Your task to perform on an android device: Open calendar and show me the third week of next month Image 0: 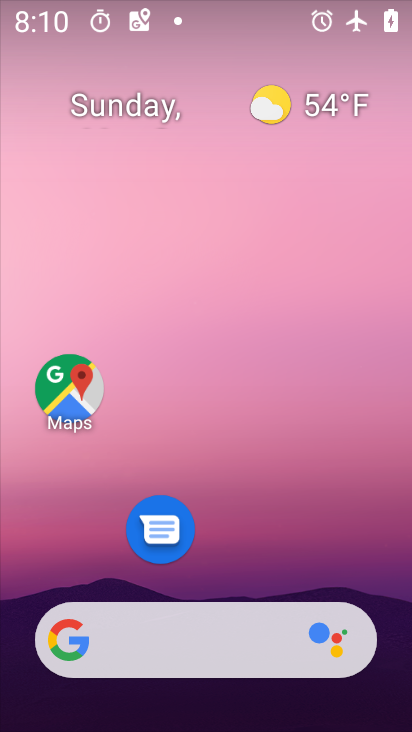
Step 0: drag from (247, 582) to (290, 125)
Your task to perform on an android device: Open calendar and show me the third week of next month Image 1: 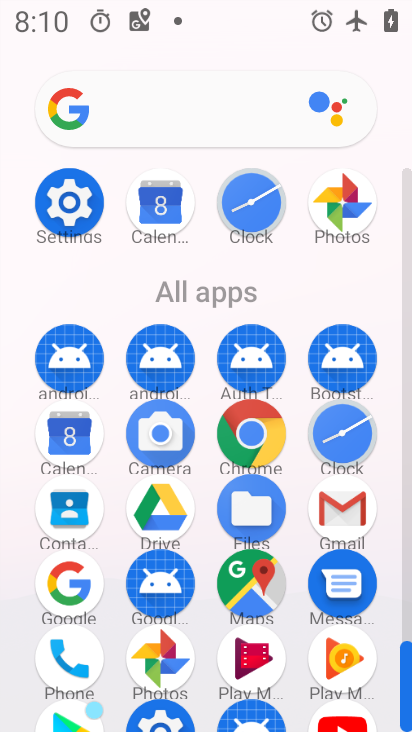
Step 1: click (71, 445)
Your task to perform on an android device: Open calendar and show me the third week of next month Image 2: 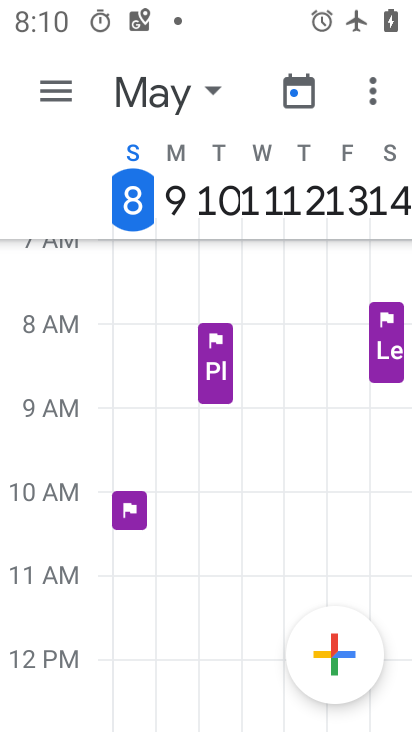
Step 2: click (185, 87)
Your task to perform on an android device: Open calendar and show me the third week of next month Image 3: 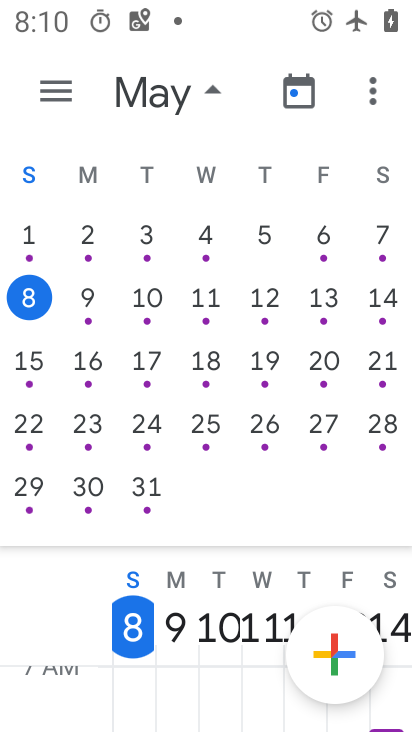
Step 3: drag from (341, 343) to (18, 353)
Your task to perform on an android device: Open calendar and show me the third week of next month Image 4: 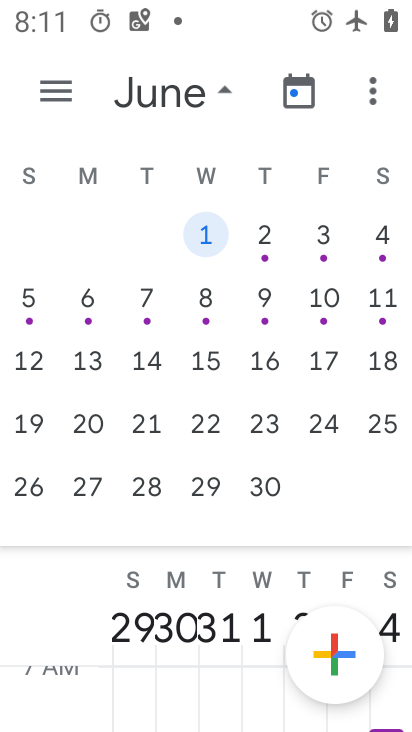
Step 4: click (67, 99)
Your task to perform on an android device: Open calendar and show me the third week of next month Image 5: 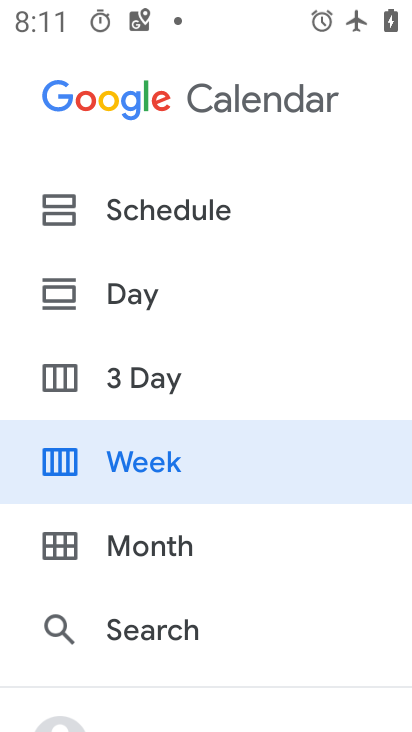
Step 5: click (166, 462)
Your task to perform on an android device: Open calendar and show me the third week of next month Image 6: 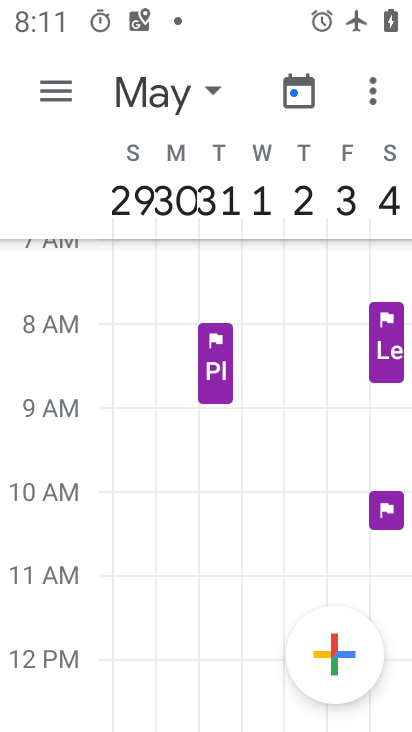
Step 6: task complete